Your task to perform on an android device: Open Amazon Image 0: 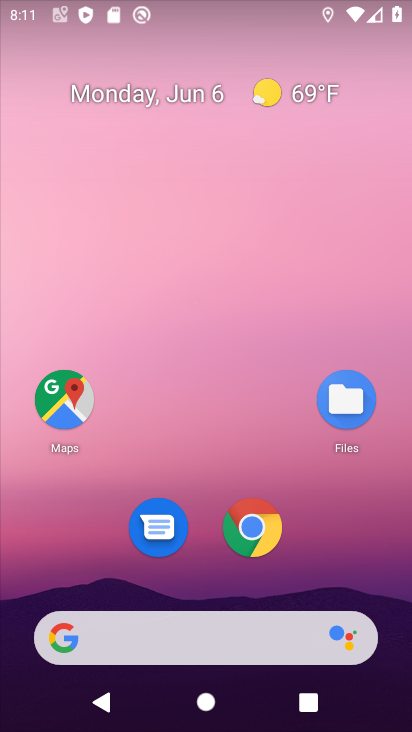
Step 0: click (252, 521)
Your task to perform on an android device: Open Amazon Image 1: 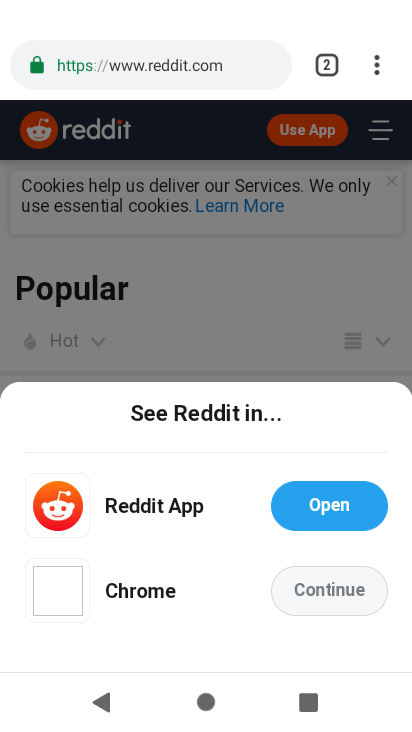
Step 1: press back button
Your task to perform on an android device: Open Amazon Image 2: 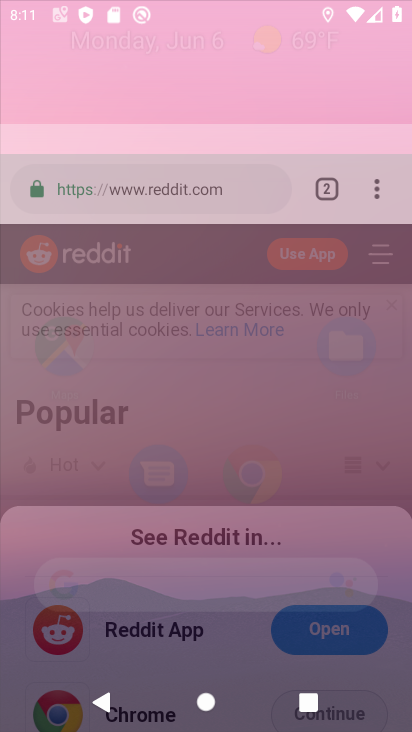
Step 2: press back button
Your task to perform on an android device: Open Amazon Image 3: 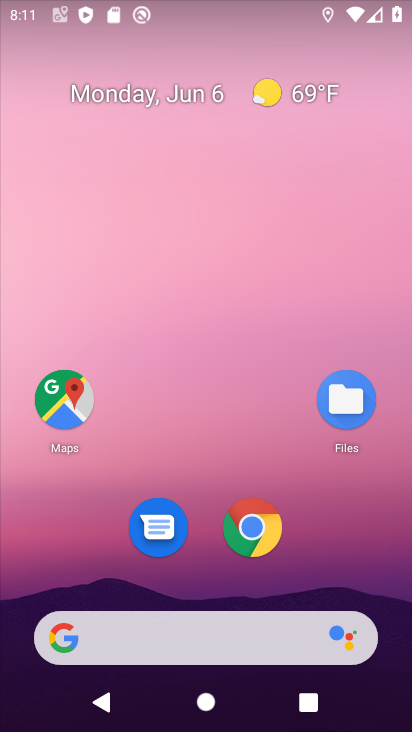
Step 3: click (249, 523)
Your task to perform on an android device: Open Amazon Image 4: 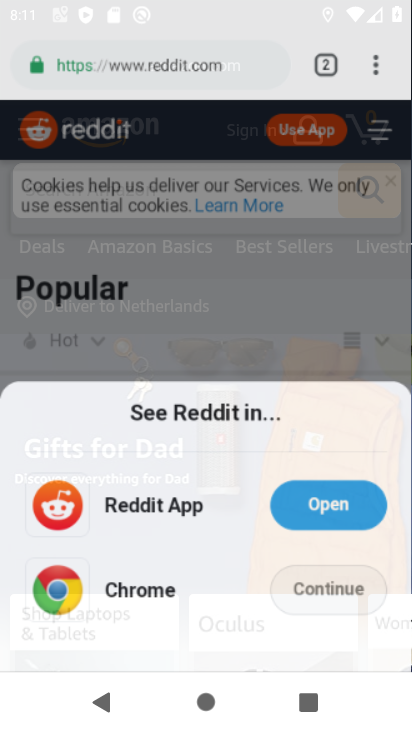
Step 4: click (328, 76)
Your task to perform on an android device: Open Amazon Image 5: 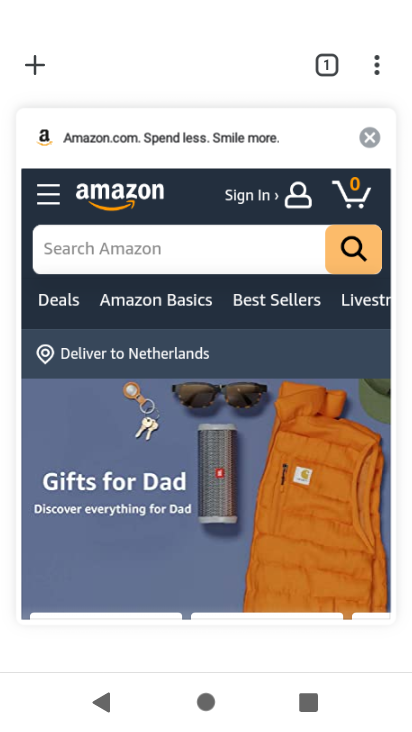
Step 5: click (42, 75)
Your task to perform on an android device: Open Amazon Image 6: 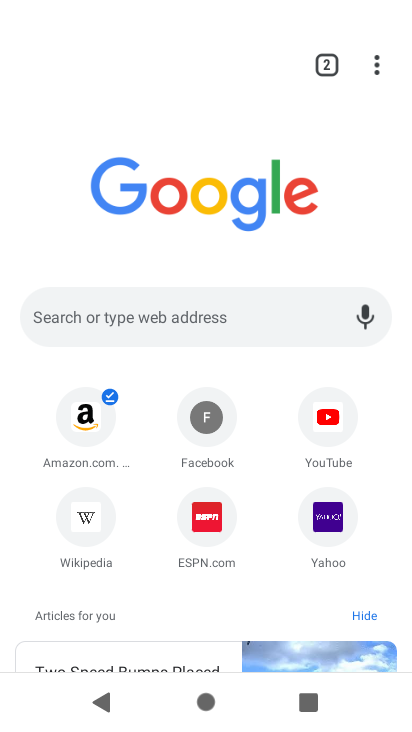
Step 6: click (82, 417)
Your task to perform on an android device: Open Amazon Image 7: 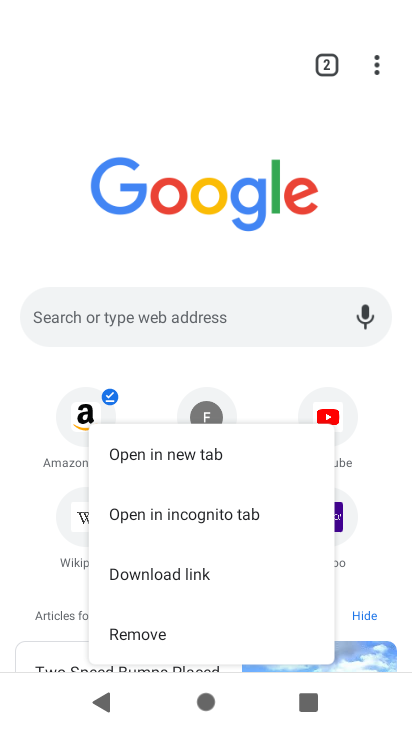
Step 7: click (77, 410)
Your task to perform on an android device: Open Amazon Image 8: 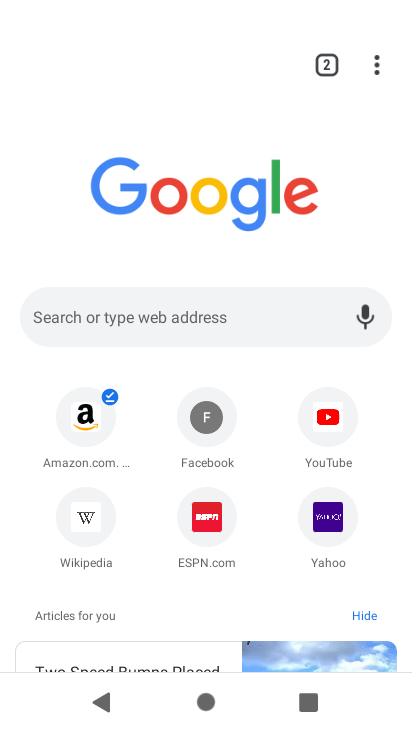
Step 8: click (87, 414)
Your task to perform on an android device: Open Amazon Image 9: 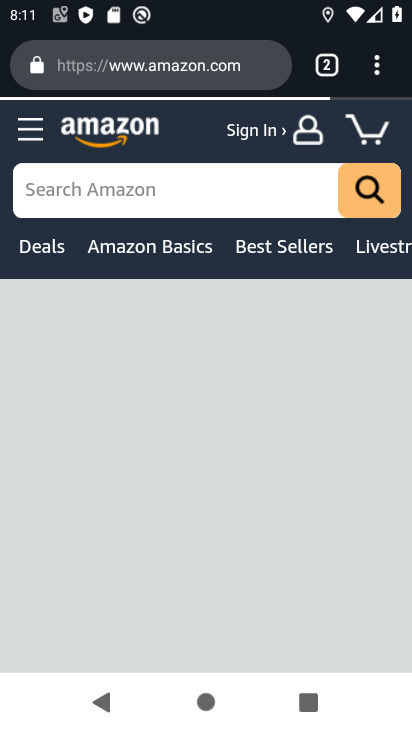
Step 9: task complete